Your task to perform on an android device: Open calendar and show me the second week of next month Image 0: 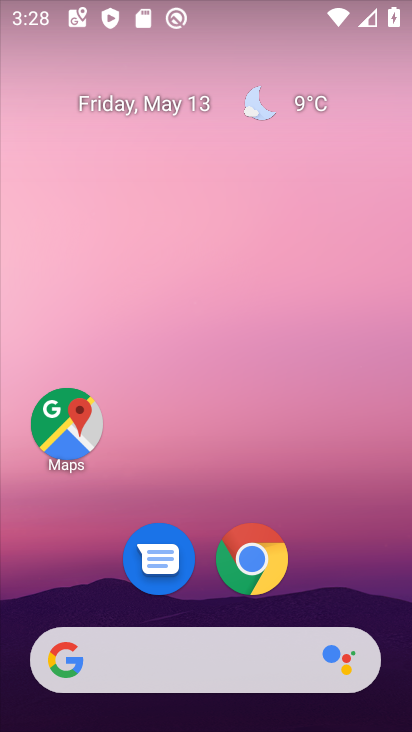
Step 0: drag from (377, 632) to (332, 67)
Your task to perform on an android device: Open calendar and show me the second week of next month Image 1: 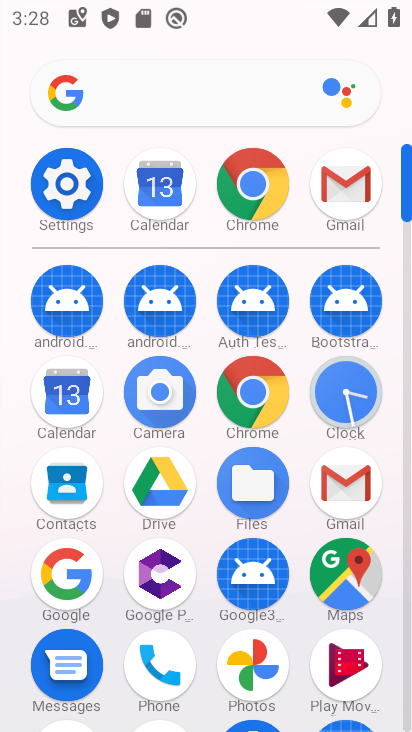
Step 1: click (61, 406)
Your task to perform on an android device: Open calendar and show me the second week of next month Image 2: 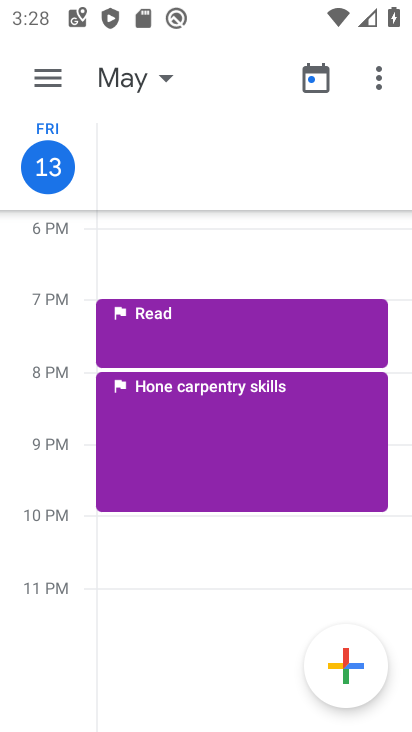
Step 2: click (54, 78)
Your task to perform on an android device: Open calendar and show me the second week of next month Image 3: 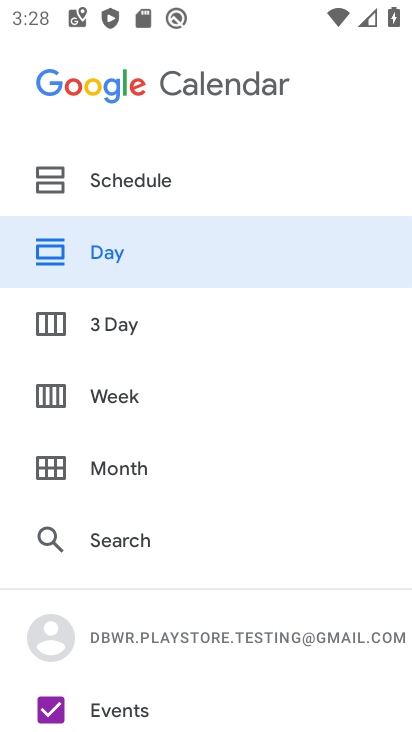
Step 3: click (117, 403)
Your task to perform on an android device: Open calendar and show me the second week of next month Image 4: 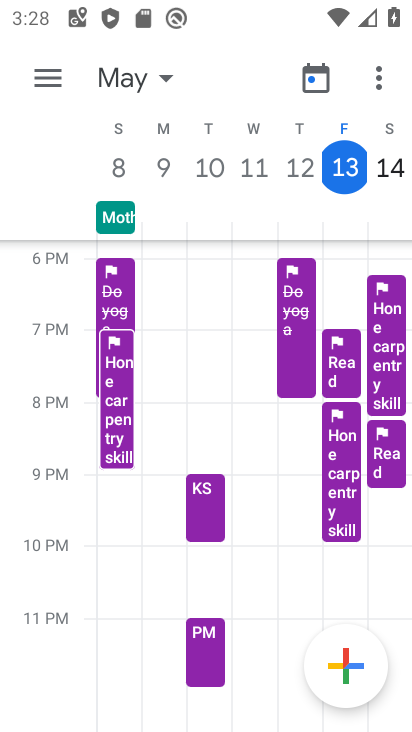
Step 4: click (168, 84)
Your task to perform on an android device: Open calendar and show me the second week of next month Image 5: 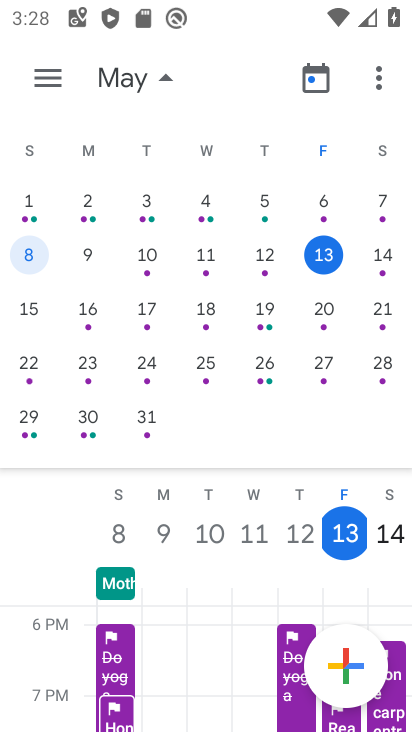
Step 5: drag from (379, 341) to (7, 286)
Your task to perform on an android device: Open calendar and show me the second week of next month Image 6: 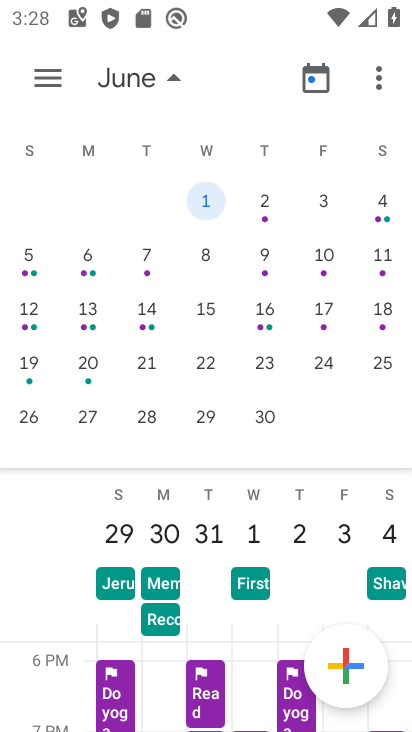
Step 6: click (31, 258)
Your task to perform on an android device: Open calendar and show me the second week of next month Image 7: 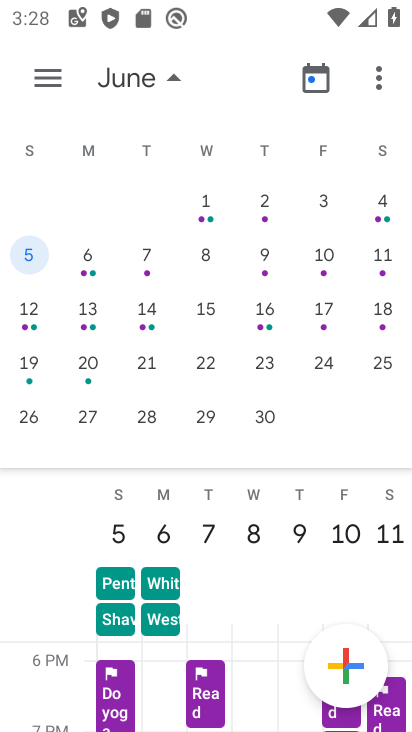
Step 7: task complete